Your task to perform on an android device: Go to location settings Image 0: 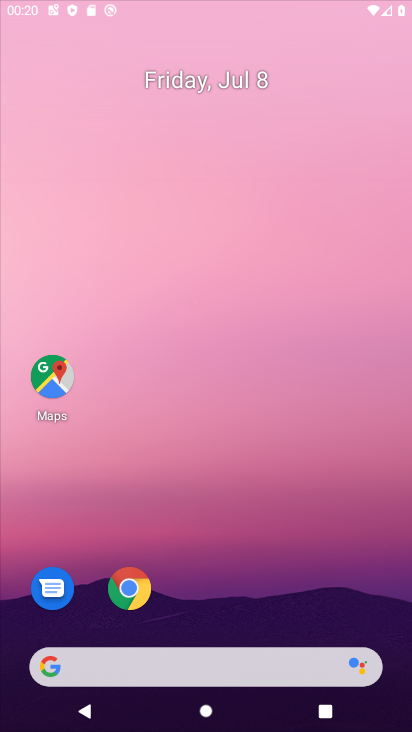
Step 0: click (345, 233)
Your task to perform on an android device: Go to location settings Image 1: 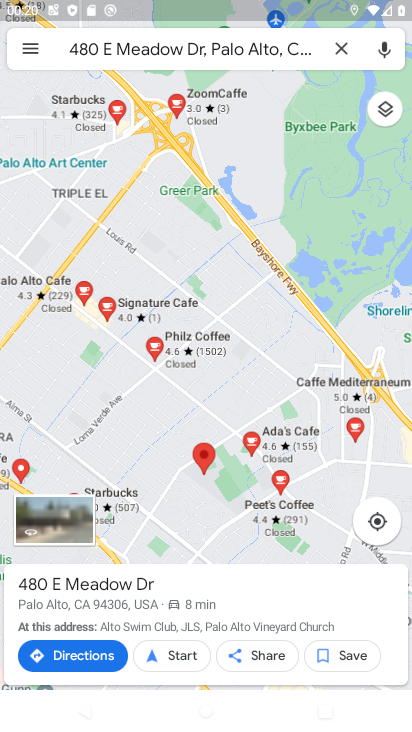
Step 1: press home button
Your task to perform on an android device: Go to location settings Image 2: 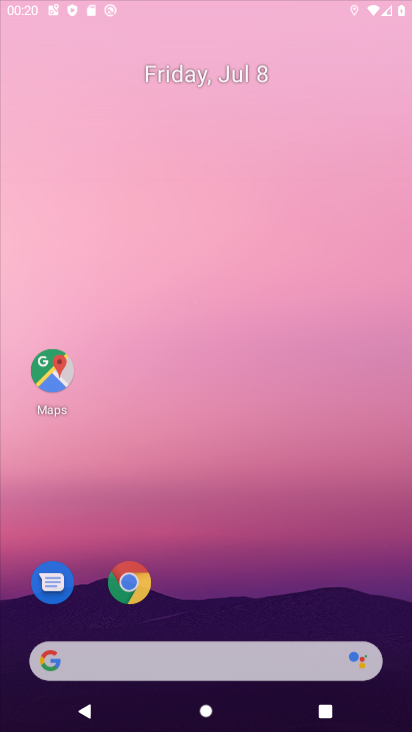
Step 2: drag from (213, 595) to (293, 98)
Your task to perform on an android device: Go to location settings Image 3: 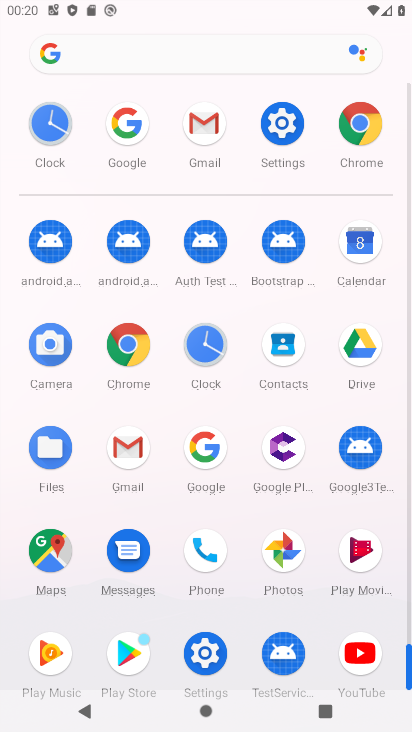
Step 3: click (286, 114)
Your task to perform on an android device: Go to location settings Image 4: 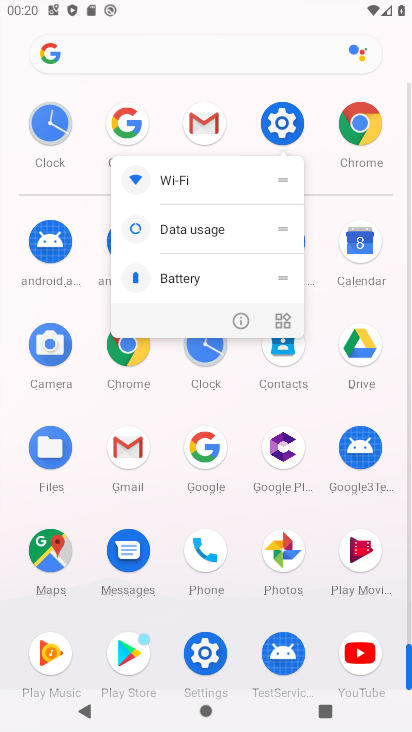
Step 4: click (242, 331)
Your task to perform on an android device: Go to location settings Image 5: 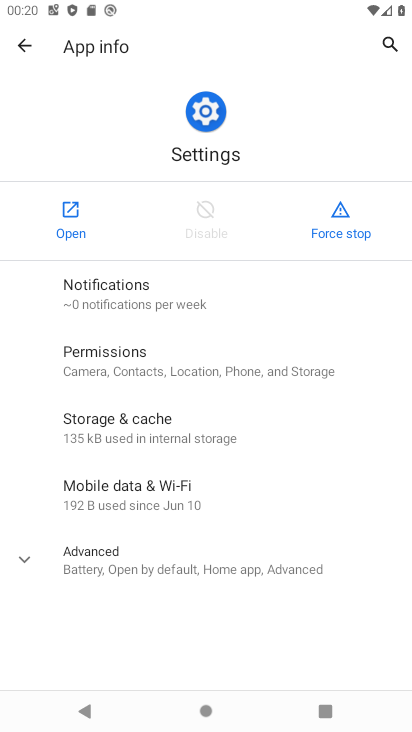
Step 5: click (77, 235)
Your task to perform on an android device: Go to location settings Image 6: 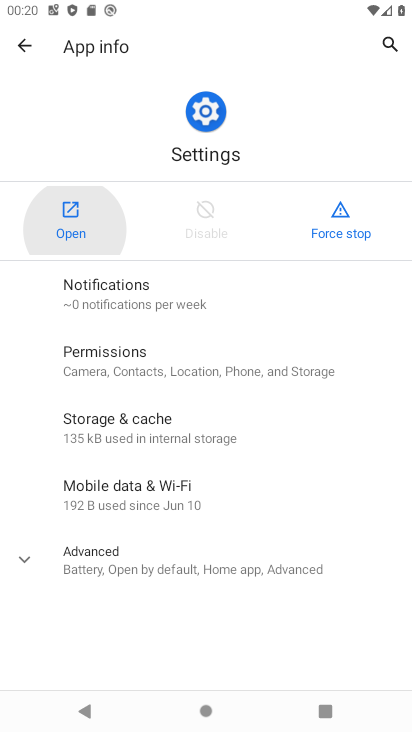
Step 6: click (77, 235)
Your task to perform on an android device: Go to location settings Image 7: 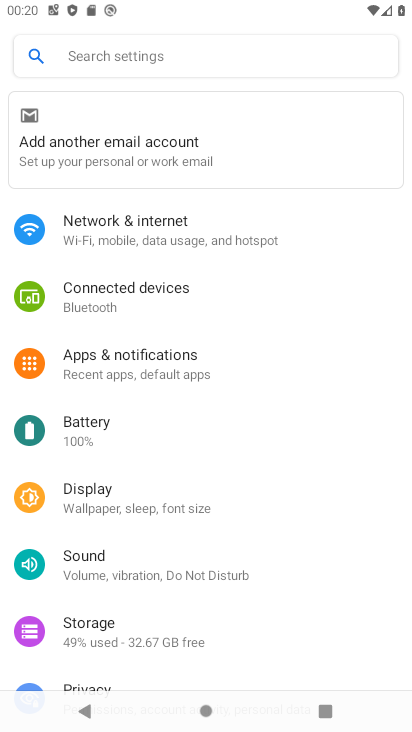
Step 7: drag from (234, 602) to (312, 176)
Your task to perform on an android device: Go to location settings Image 8: 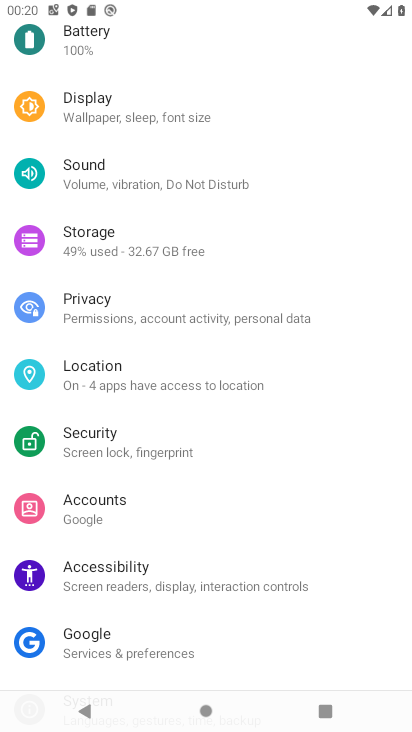
Step 8: click (159, 380)
Your task to perform on an android device: Go to location settings Image 9: 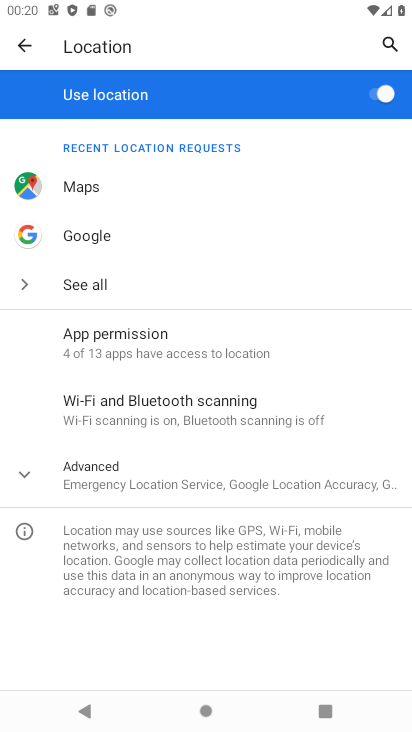
Step 9: click (112, 467)
Your task to perform on an android device: Go to location settings Image 10: 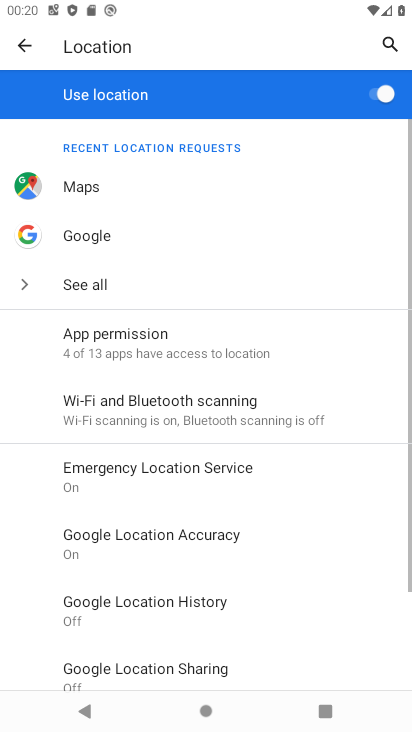
Step 10: task complete